Your task to perform on an android device: change your default location settings in chrome Image 0: 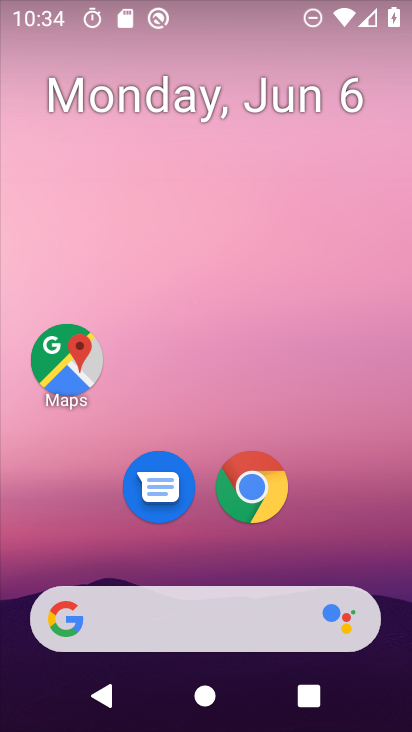
Step 0: drag from (395, 618) to (302, 20)
Your task to perform on an android device: change your default location settings in chrome Image 1: 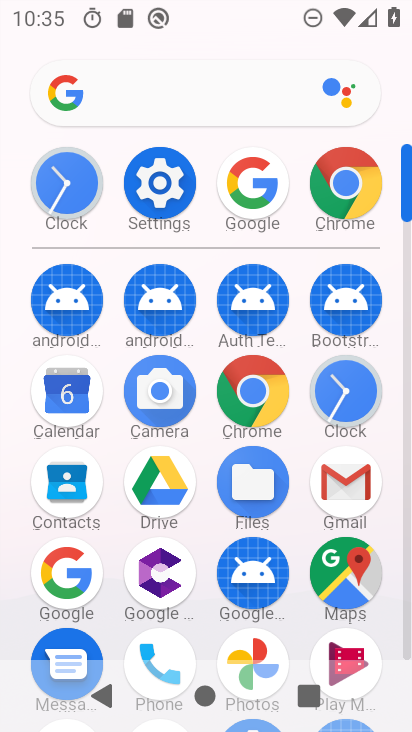
Step 1: click (348, 187)
Your task to perform on an android device: change your default location settings in chrome Image 2: 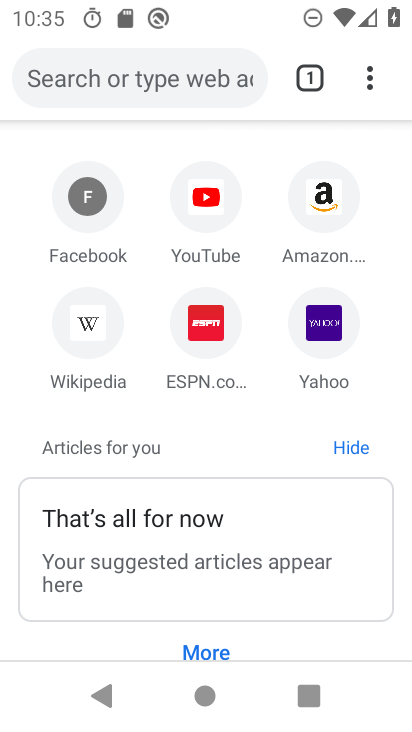
Step 2: click (369, 75)
Your task to perform on an android device: change your default location settings in chrome Image 3: 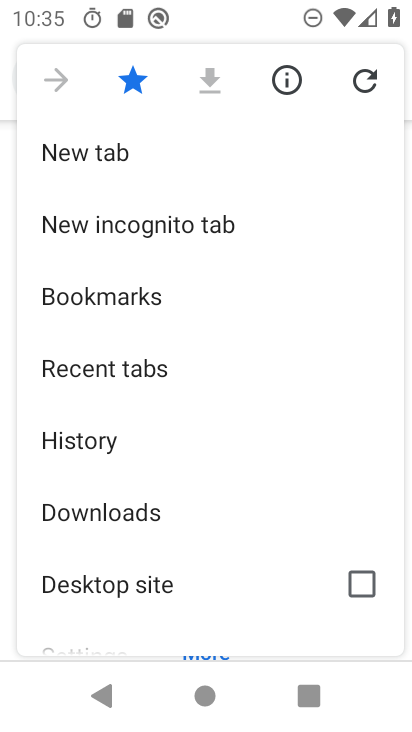
Step 3: drag from (171, 555) to (152, 228)
Your task to perform on an android device: change your default location settings in chrome Image 4: 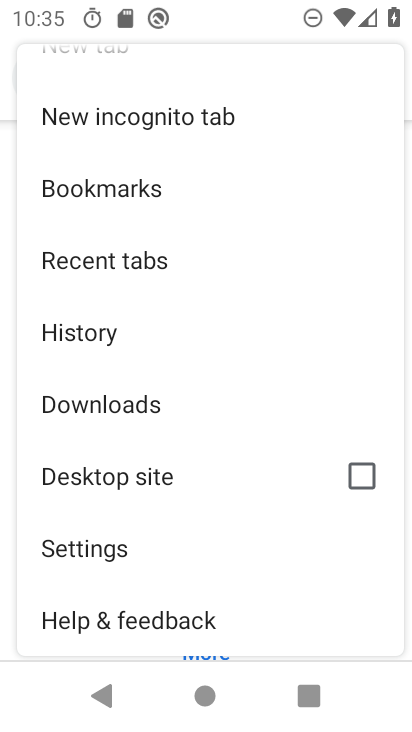
Step 4: click (140, 544)
Your task to perform on an android device: change your default location settings in chrome Image 5: 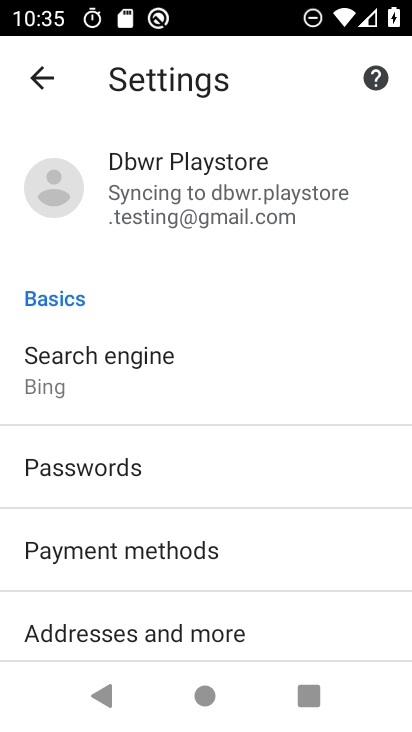
Step 5: click (163, 361)
Your task to perform on an android device: change your default location settings in chrome Image 6: 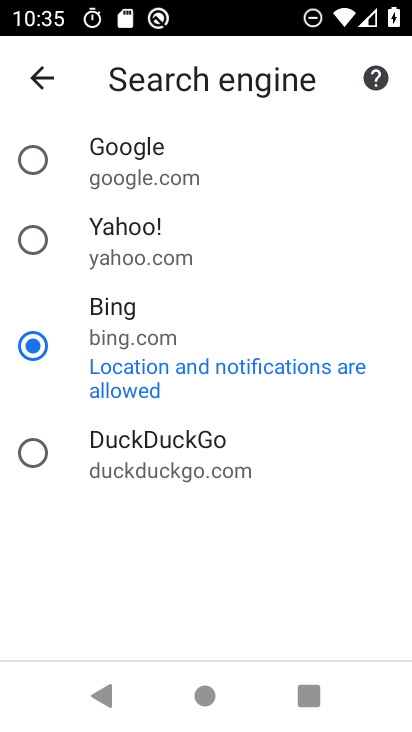
Step 6: click (49, 164)
Your task to perform on an android device: change your default location settings in chrome Image 7: 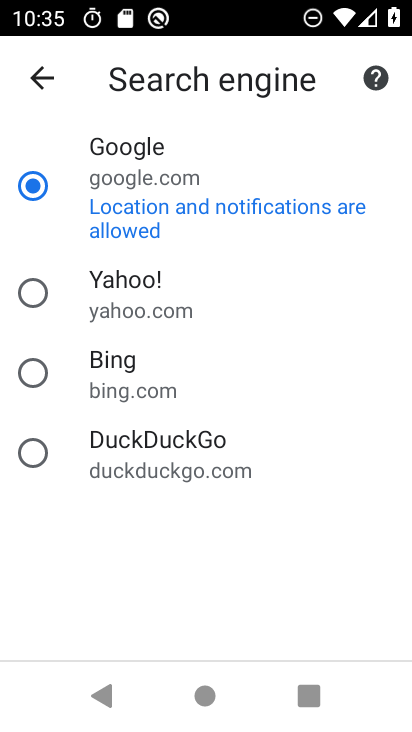
Step 7: task complete